Your task to perform on an android device: Open the calendar and show me this week's events? Image 0: 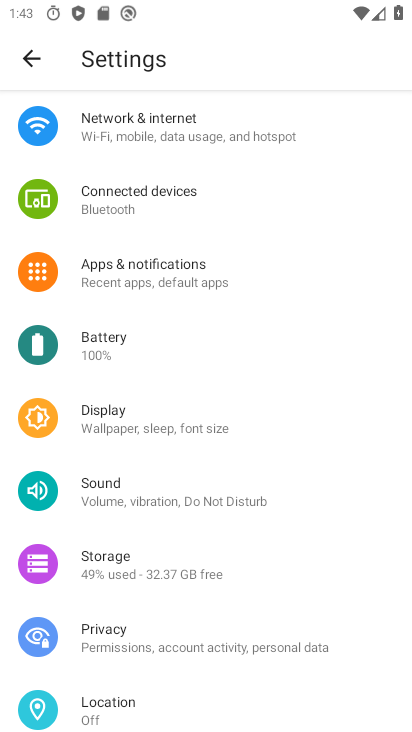
Step 0: press home button
Your task to perform on an android device: Open the calendar and show me this week's events? Image 1: 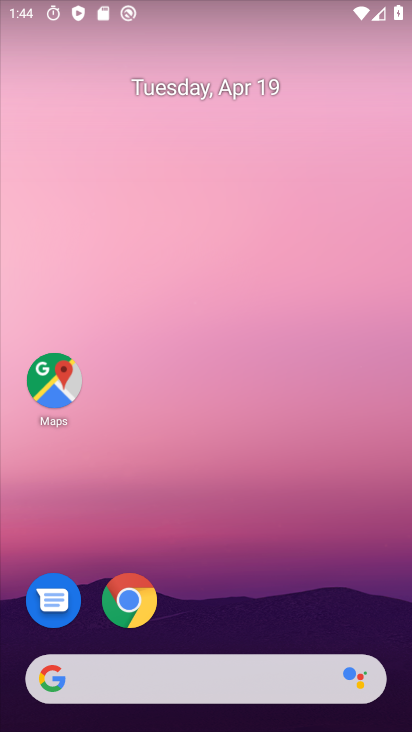
Step 1: drag from (272, 716) to (371, 270)
Your task to perform on an android device: Open the calendar and show me this week's events? Image 2: 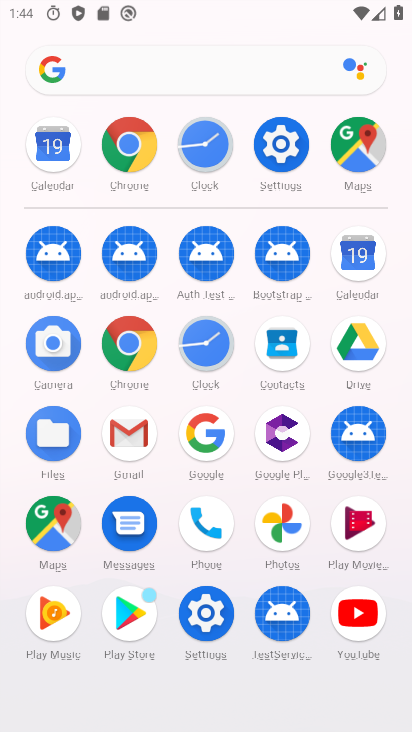
Step 2: click (335, 257)
Your task to perform on an android device: Open the calendar and show me this week's events? Image 3: 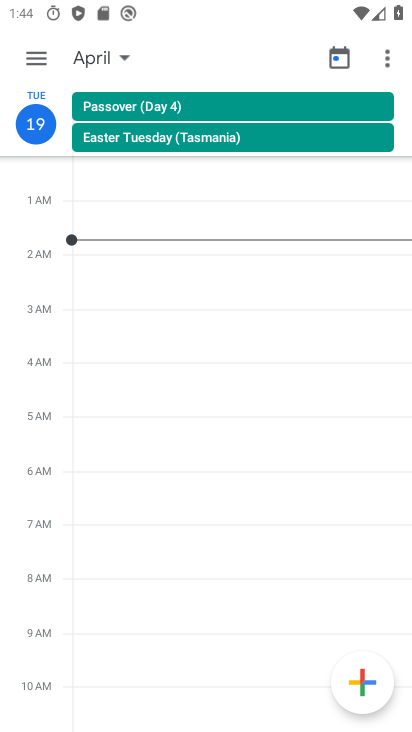
Step 3: click (30, 74)
Your task to perform on an android device: Open the calendar and show me this week's events? Image 4: 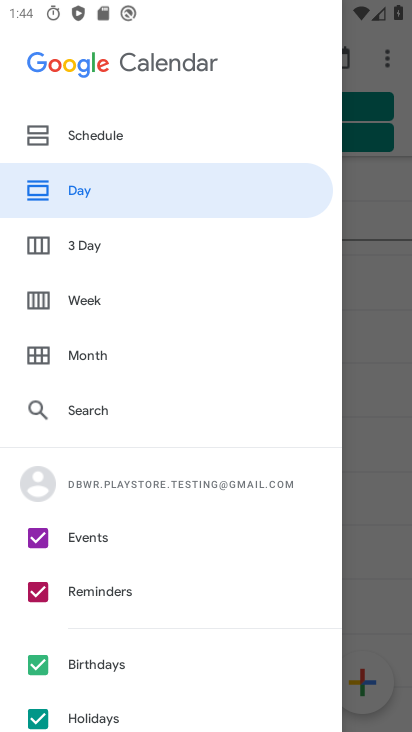
Step 4: click (100, 300)
Your task to perform on an android device: Open the calendar and show me this week's events? Image 5: 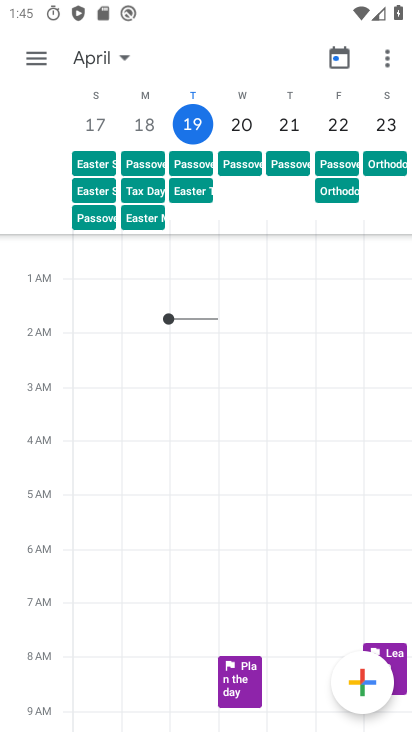
Step 5: task complete